Your task to perform on an android device: Is it going to rain tomorrow? Image 0: 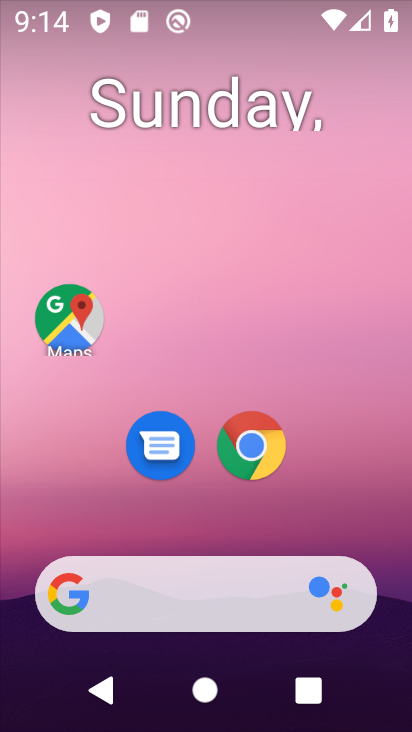
Step 0: click (264, 442)
Your task to perform on an android device: Is it going to rain tomorrow? Image 1: 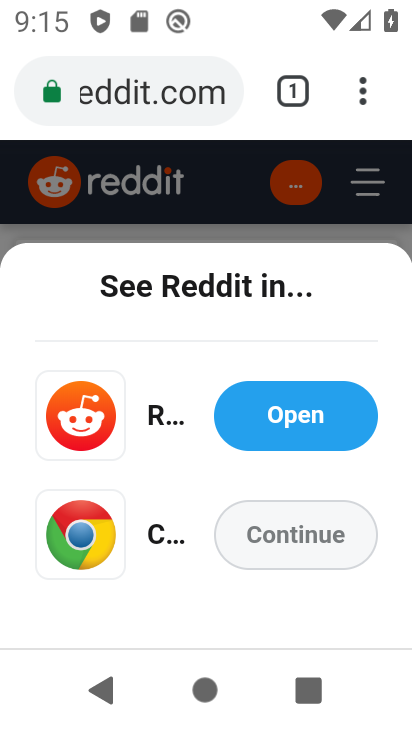
Step 1: click (154, 101)
Your task to perform on an android device: Is it going to rain tomorrow? Image 2: 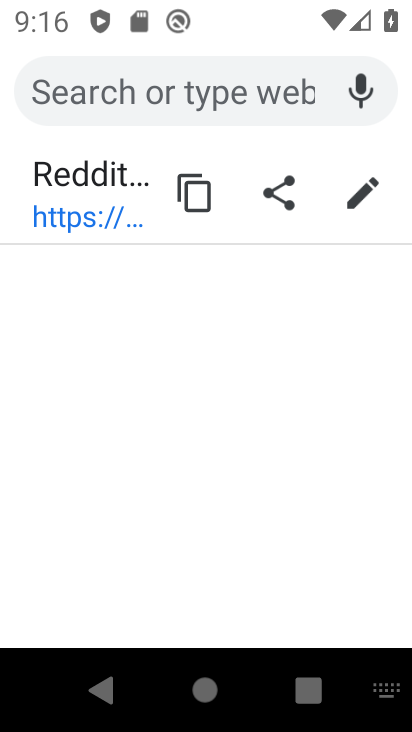
Step 2: type "Is it going to rain tomorrow?"
Your task to perform on an android device: Is it going to rain tomorrow? Image 3: 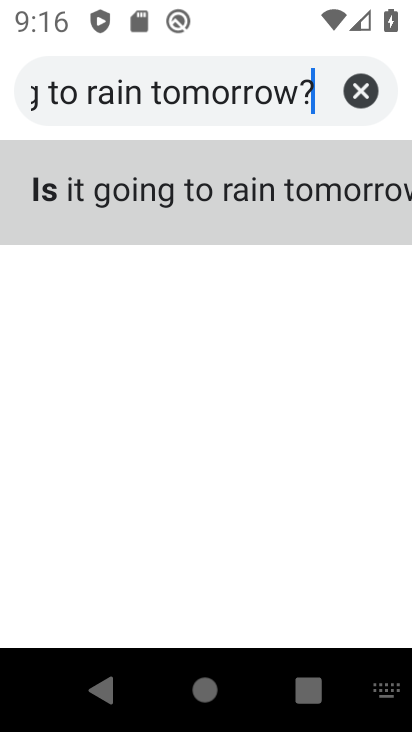
Step 3: click (161, 205)
Your task to perform on an android device: Is it going to rain tomorrow? Image 4: 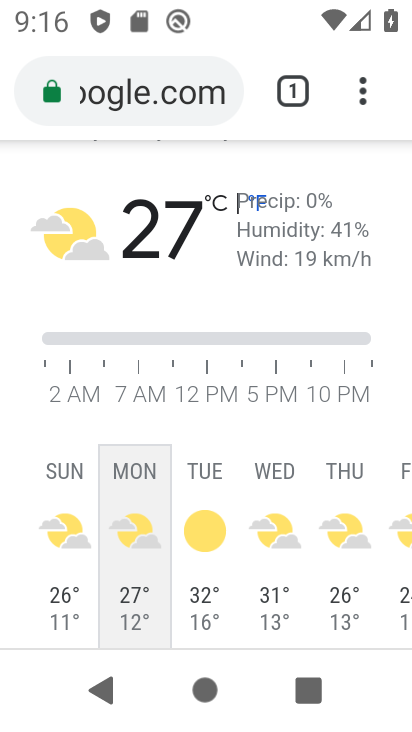
Step 4: task complete